Your task to perform on an android device: Go to Amazon Image 0: 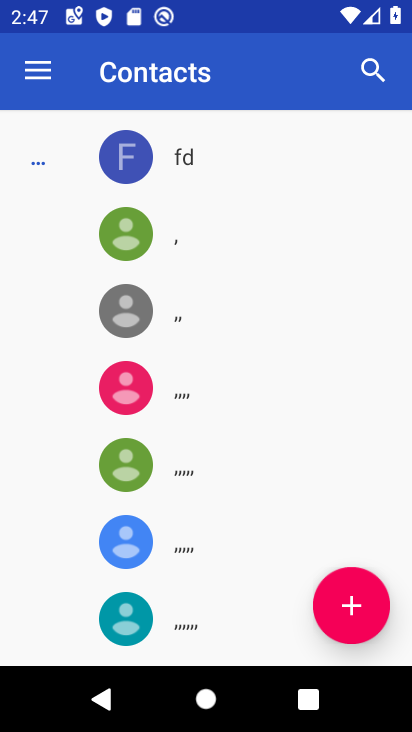
Step 0: press home button
Your task to perform on an android device: Go to Amazon Image 1: 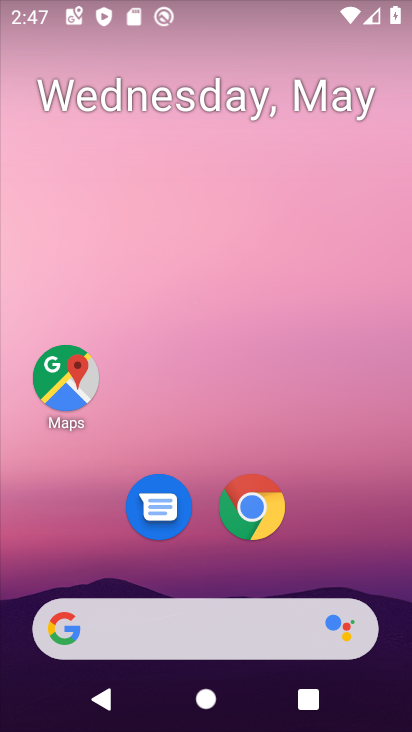
Step 1: click (255, 509)
Your task to perform on an android device: Go to Amazon Image 2: 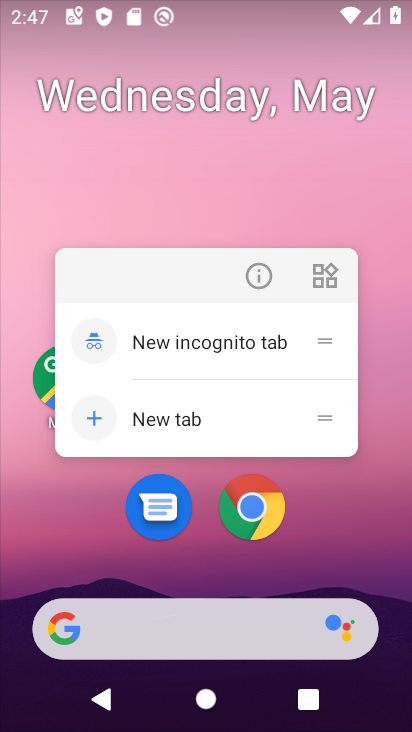
Step 2: click (238, 493)
Your task to perform on an android device: Go to Amazon Image 3: 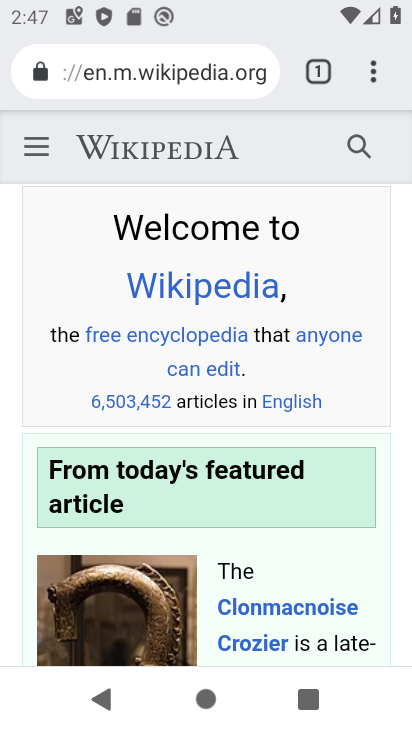
Step 3: click (185, 76)
Your task to perform on an android device: Go to Amazon Image 4: 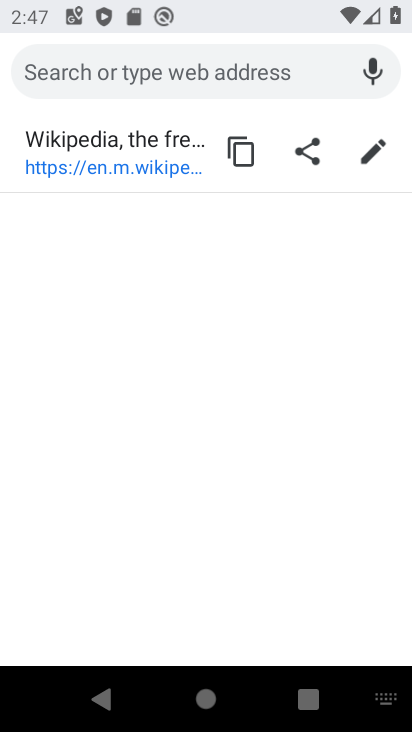
Step 4: type "amazon"
Your task to perform on an android device: Go to Amazon Image 5: 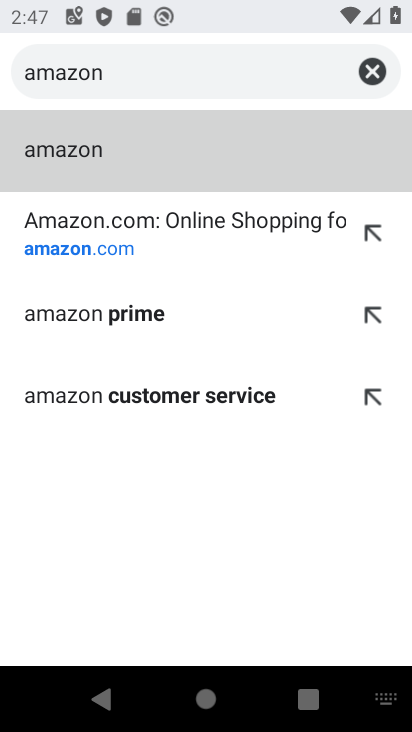
Step 5: click (120, 153)
Your task to perform on an android device: Go to Amazon Image 6: 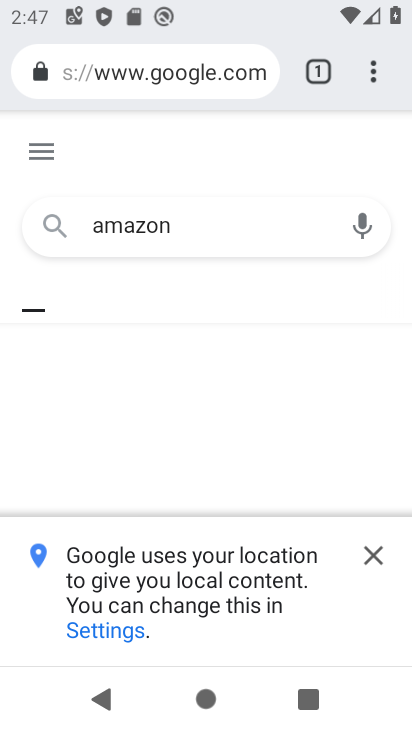
Step 6: click (374, 551)
Your task to perform on an android device: Go to Amazon Image 7: 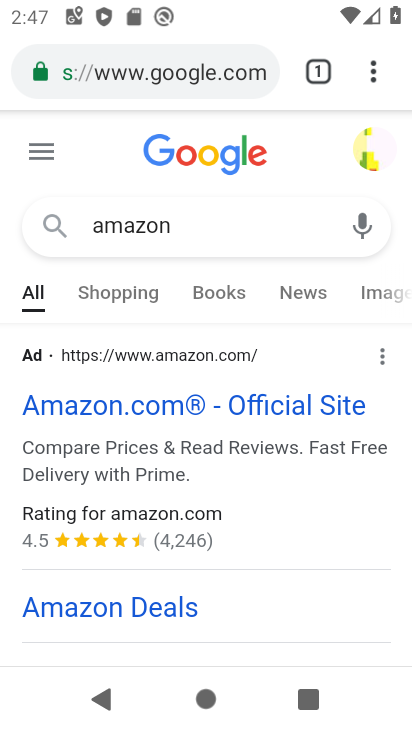
Step 7: task complete